Your task to perform on an android device: What's the weather today? Image 0: 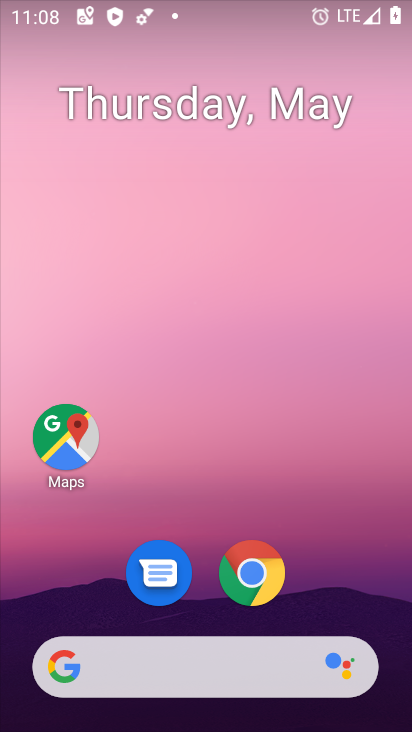
Step 0: drag from (193, 613) to (220, 162)
Your task to perform on an android device: What's the weather today? Image 1: 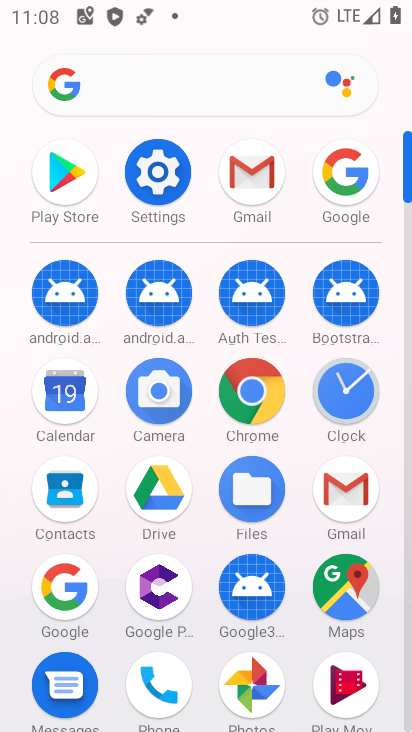
Step 1: click (50, 585)
Your task to perform on an android device: What's the weather today? Image 2: 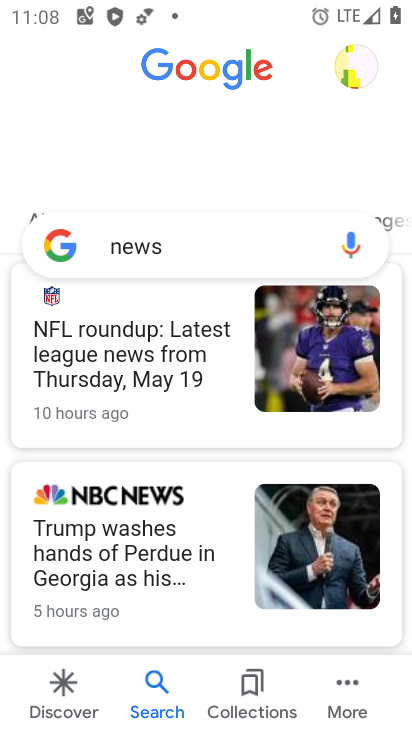
Step 2: click (197, 236)
Your task to perform on an android device: What's the weather today? Image 3: 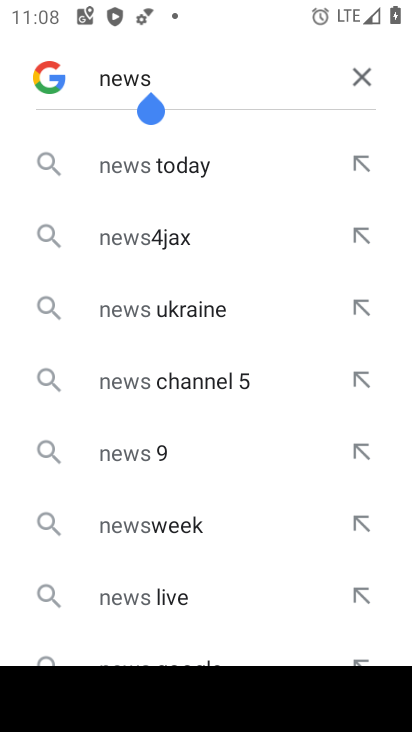
Step 3: click (353, 82)
Your task to perform on an android device: What's the weather today? Image 4: 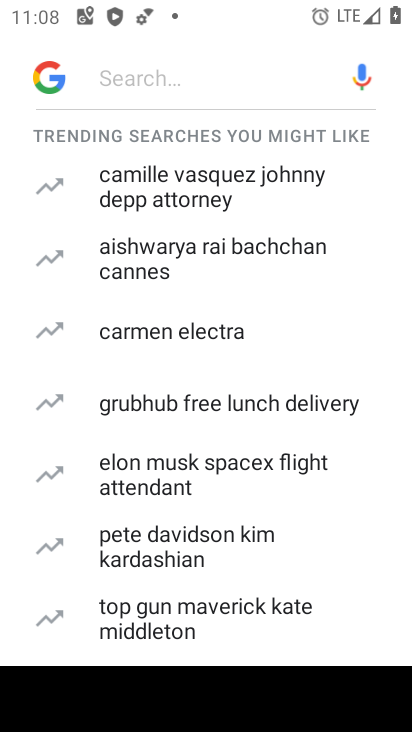
Step 4: type "weather"
Your task to perform on an android device: What's the weather today? Image 5: 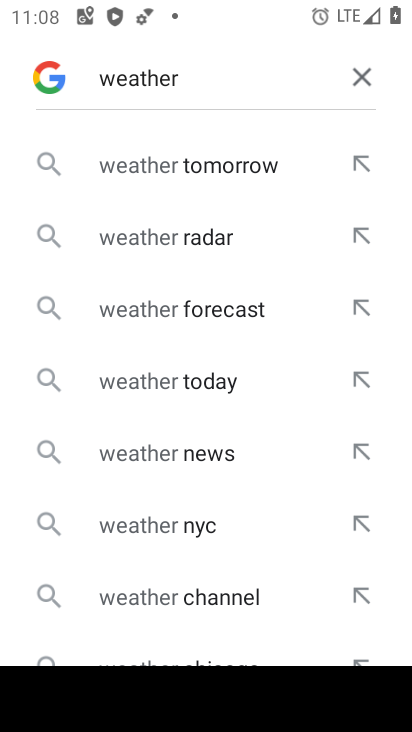
Step 5: drag from (211, 500) to (255, 249)
Your task to perform on an android device: What's the weather today? Image 6: 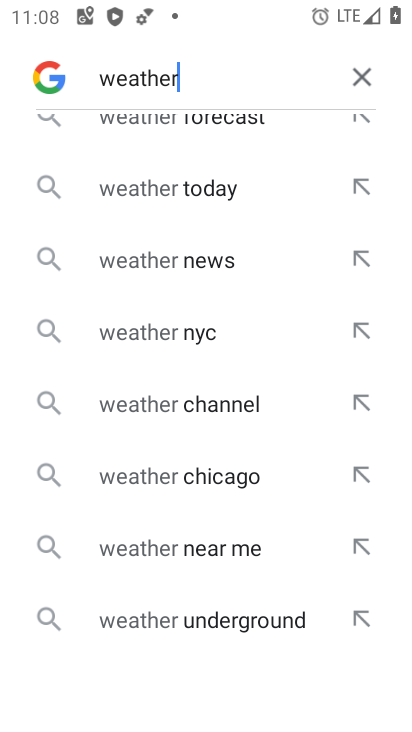
Step 6: drag from (256, 543) to (267, 205)
Your task to perform on an android device: What's the weather today? Image 7: 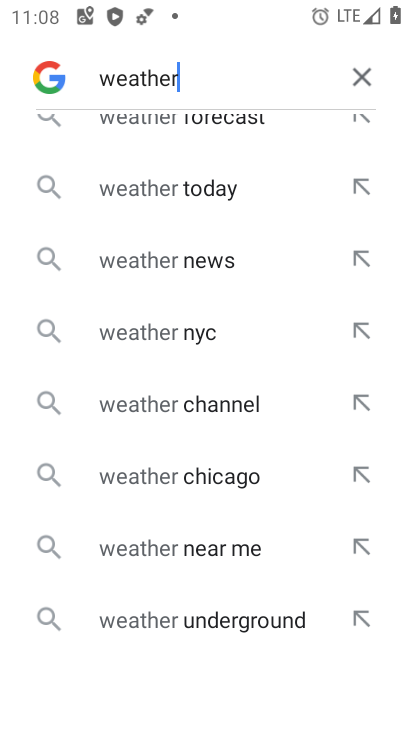
Step 7: drag from (203, 237) to (241, 582)
Your task to perform on an android device: What's the weather today? Image 8: 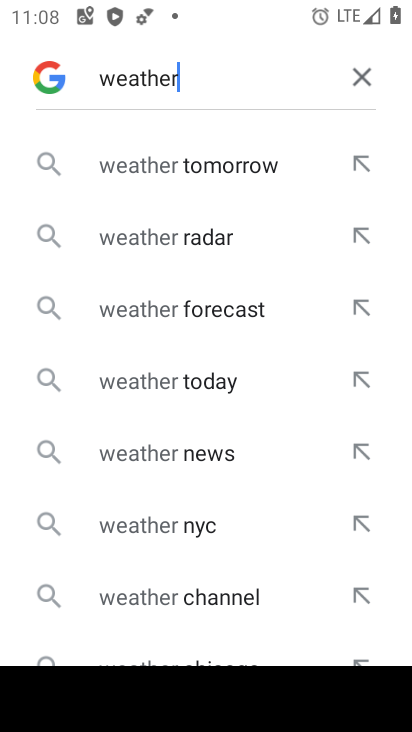
Step 8: click (198, 366)
Your task to perform on an android device: What's the weather today? Image 9: 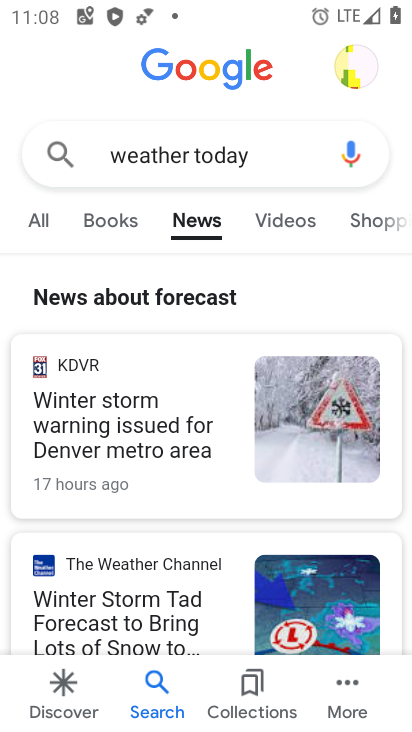
Step 9: click (33, 220)
Your task to perform on an android device: What's the weather today? Image 10: 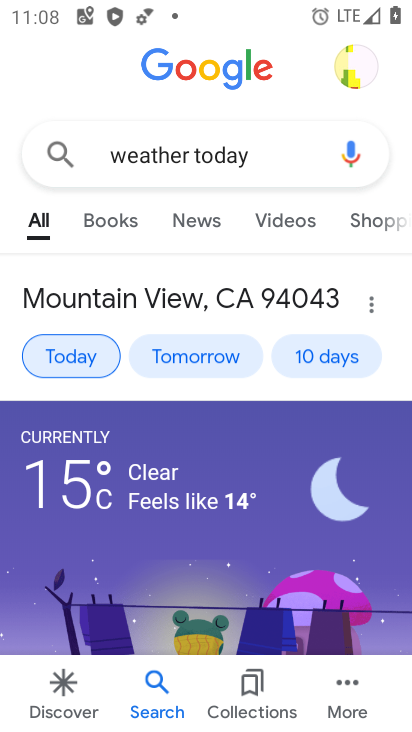
Step 10: task complete